Your task to perform on an android device: Open Google Chrome and click the shortcut for Amazon.com Image 0: 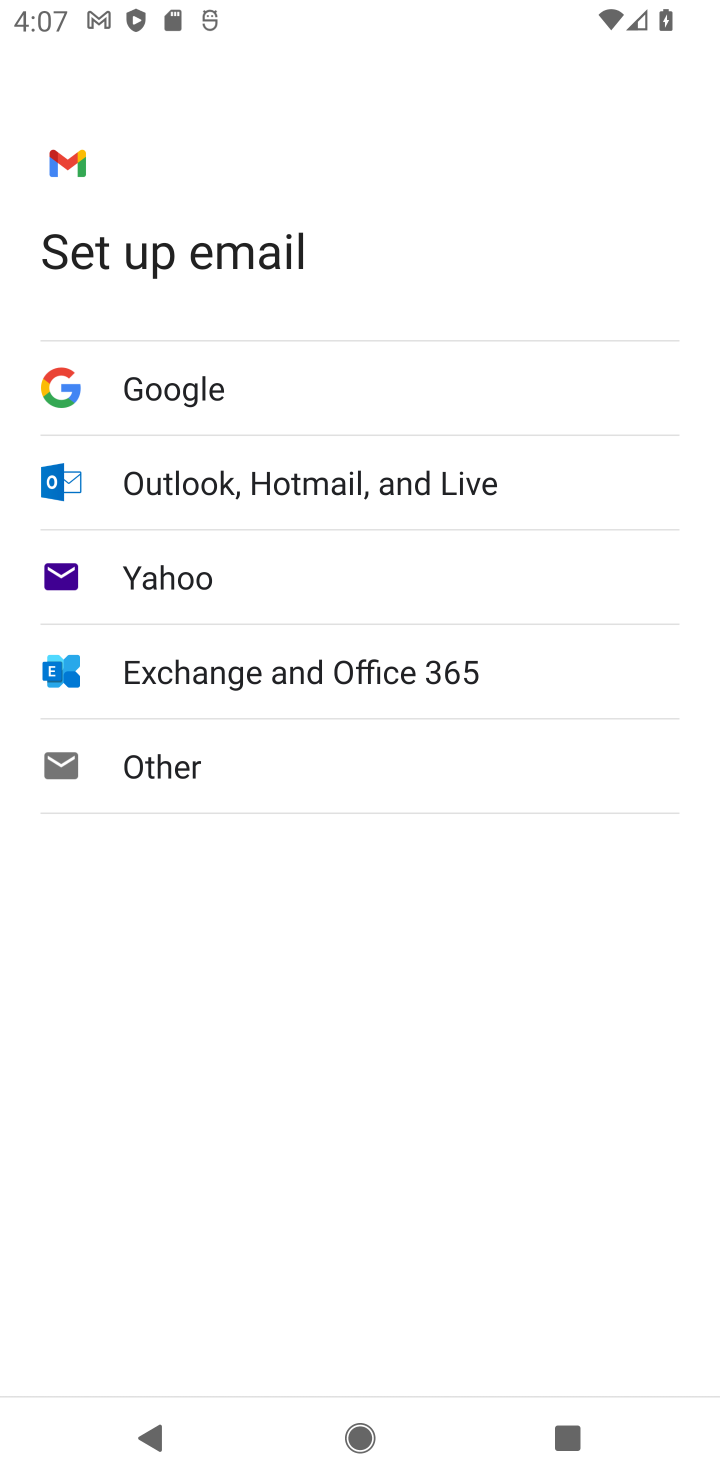
Step 0: press home button
Your task to perform on an android device: Open Google Chrome and click the shortcut for Amazon.com Image 1: 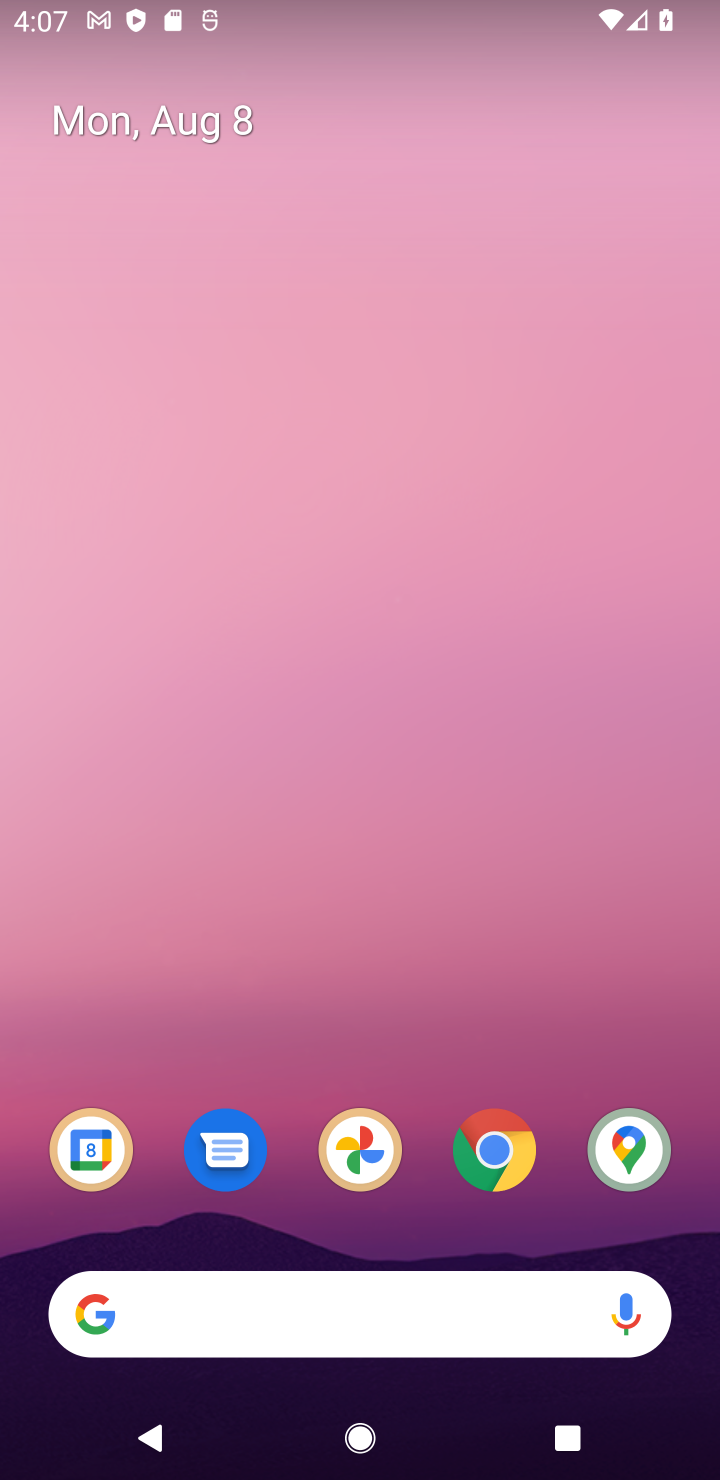
Step 1: click (502, 1149)
Your task to perform on an android device: Open Google Chrome and click the shortcut for Amazon.com Image 2: 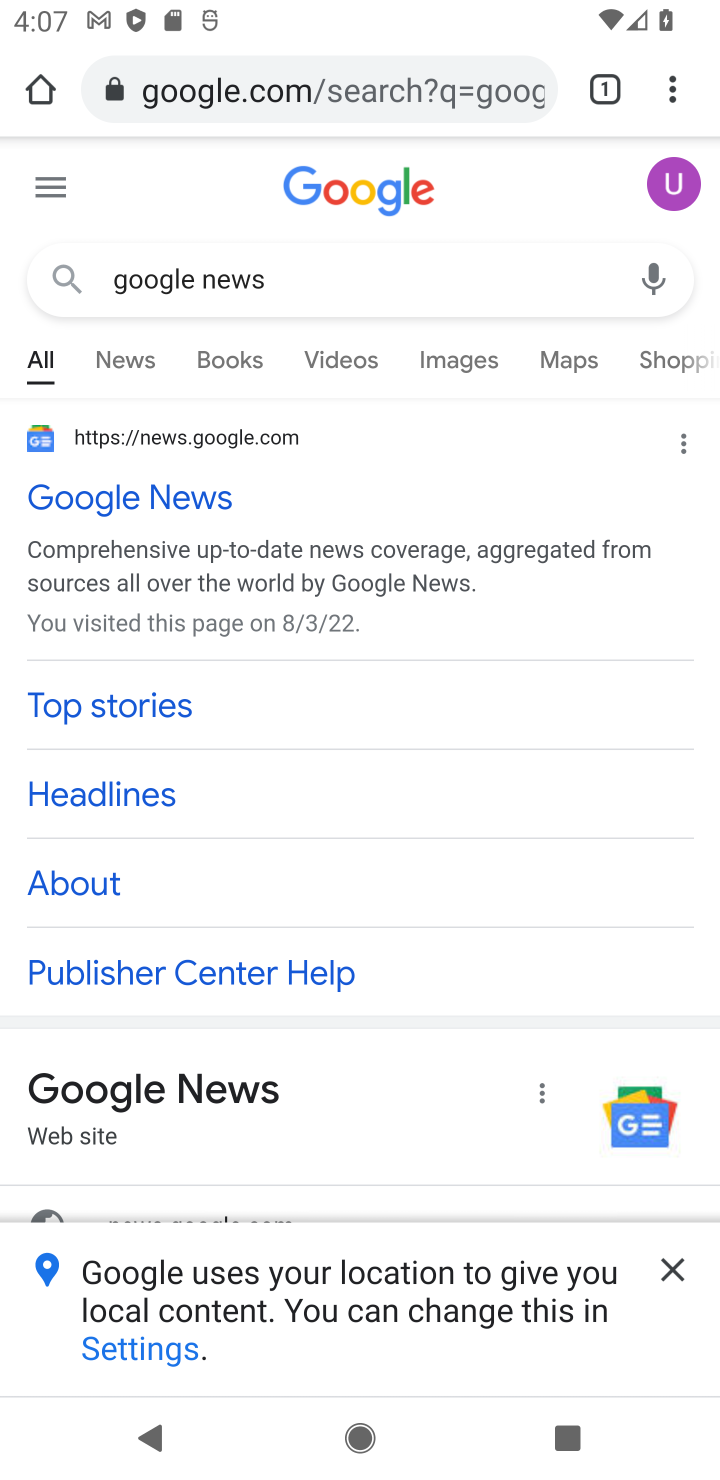
Step 2: click (29, 94)
Your task to perform on an android device: Open Google Chrome and click the shortcut for Amazon.com Image 3: 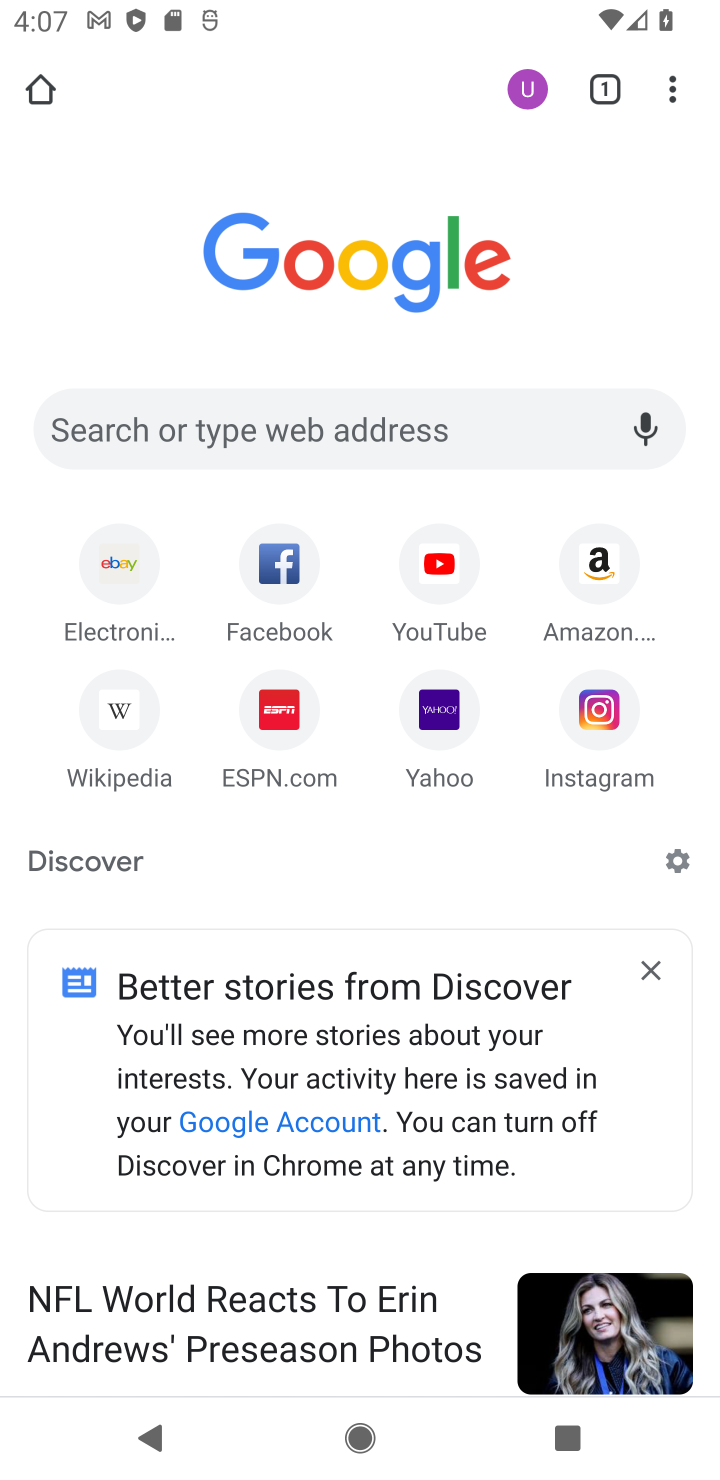
Step 3: click (584, 592)
Your task to perform on an android device: Open Google Chrome and click the shortcut for Amazon.com Image 4: 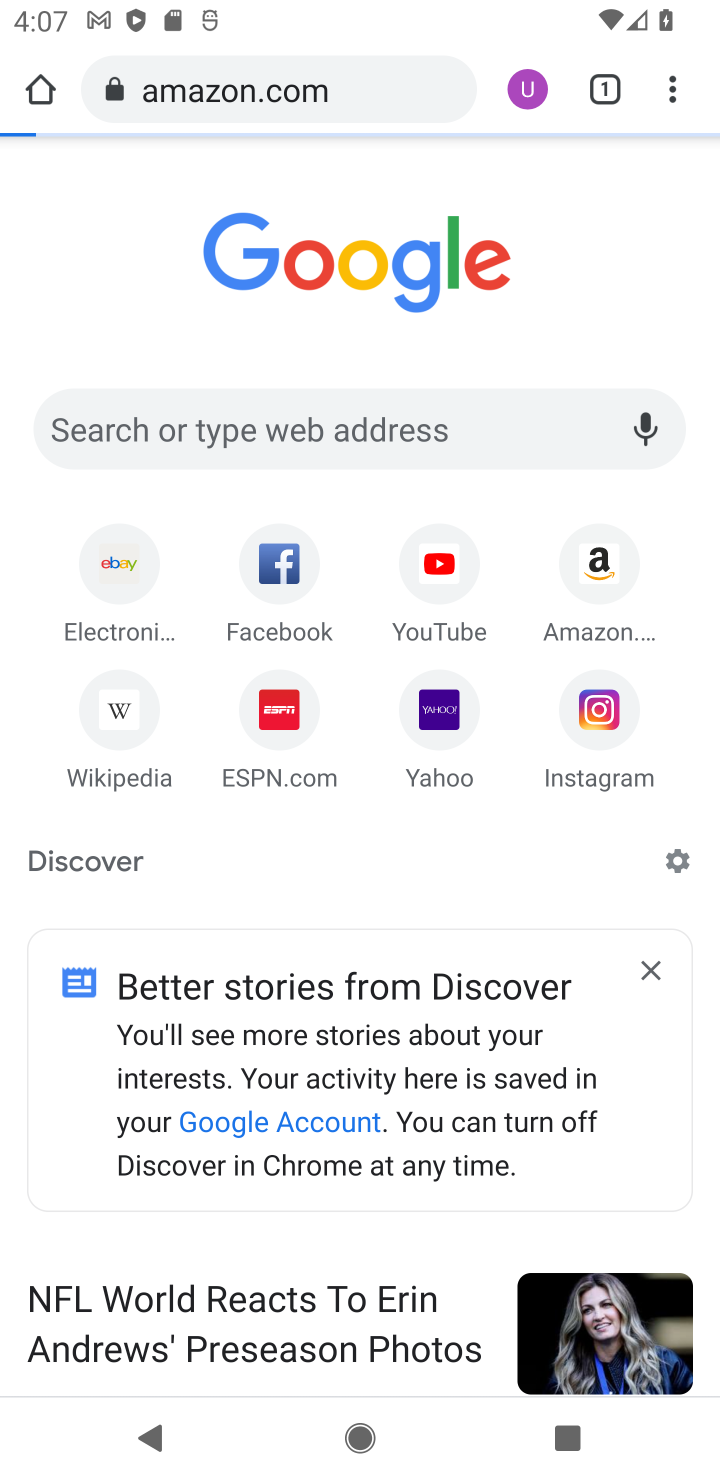
Step 4: task complete